Your task to perform on an android device: Open ESPN.com Image 0: 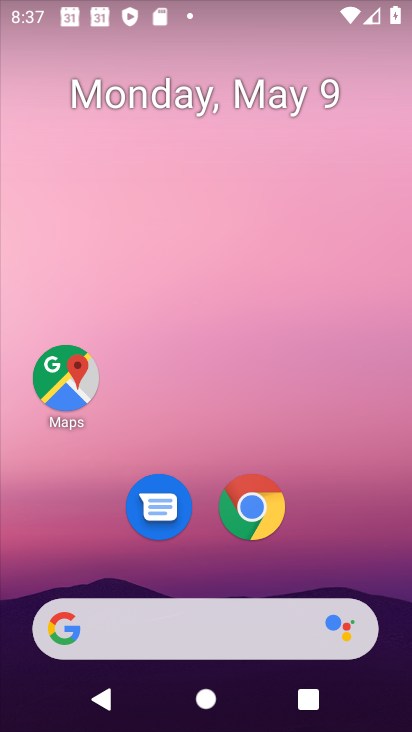
Step 0: click (255, 506)
Your task to perform on an android device: Open ESPN.com Image 1: 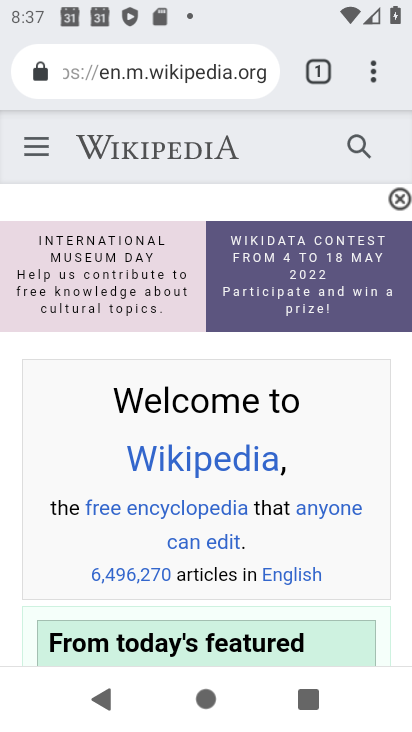
Step 1: click (205, 79)
Your task to perform on an android device: Open ESPN.com Image 2: 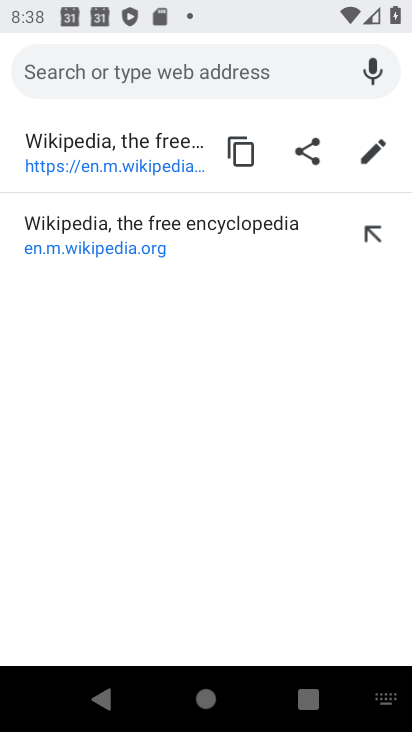
Step 2: type "ESPN.com"
Your task to perform on an android device: Open ESPN.com Image 3: 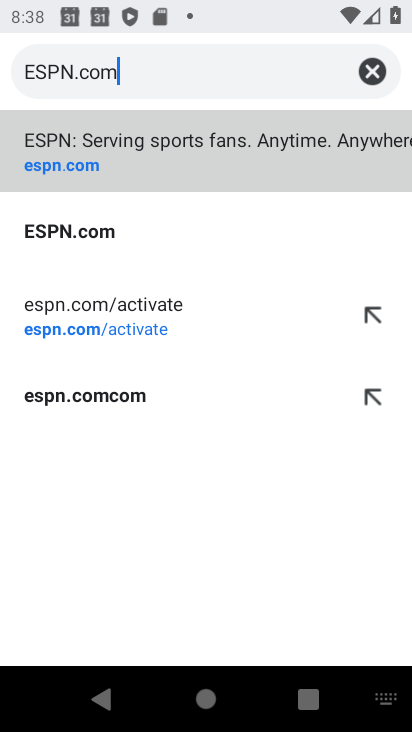
Step 3: type ""
Your task to perform on an android device: Open ESPN.com Image 4: 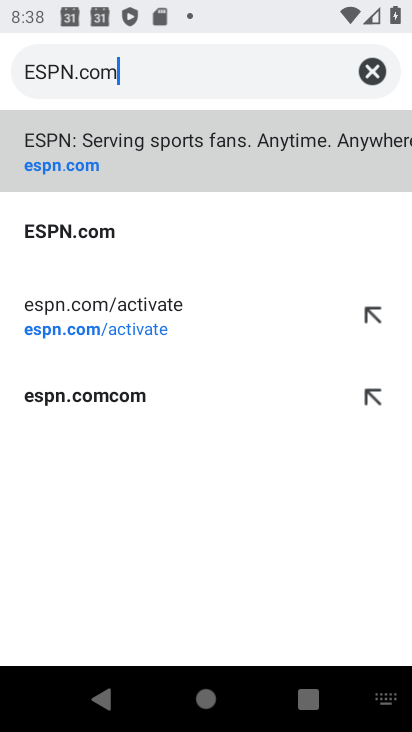
Step 4: click (52, 227)
Your task to perform on an android device: Open ESPN.com Image 5: 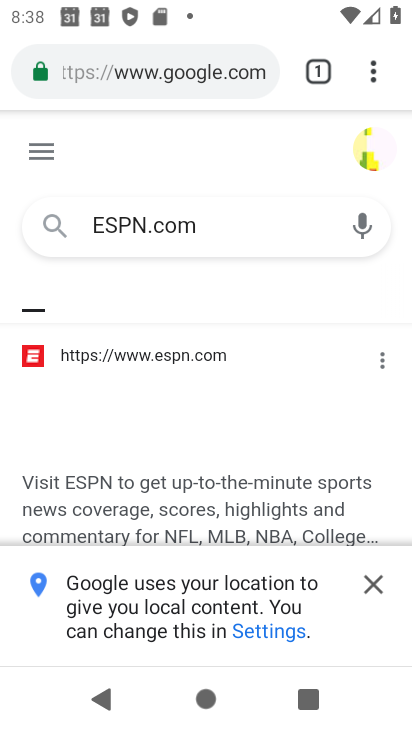
Step 5: click (375, 574)
Your task to perform on an android device: Open ESPN.com Image 6: 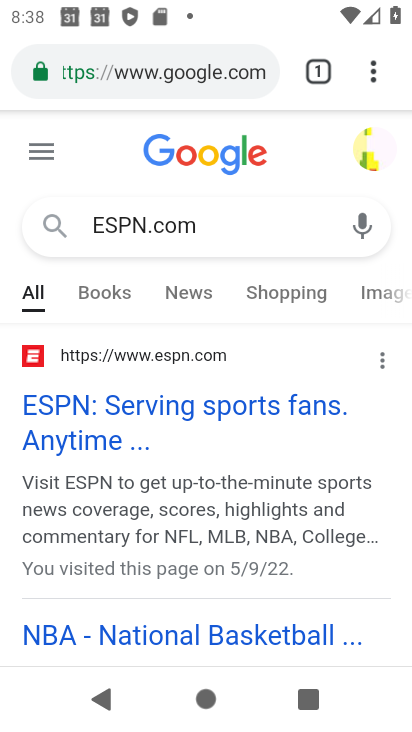
Step 6: click (182, 400)
Your task to perform on an android device: Open ESPN.com Image 7: 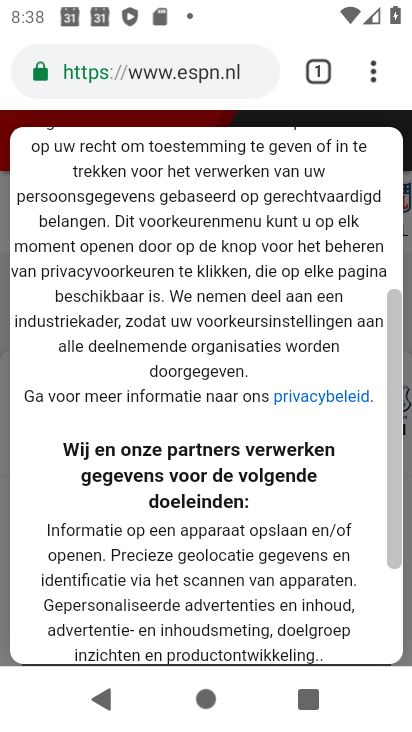
Step 7: task complete